Your task to perform on an android device: toggle wifi Image 0: 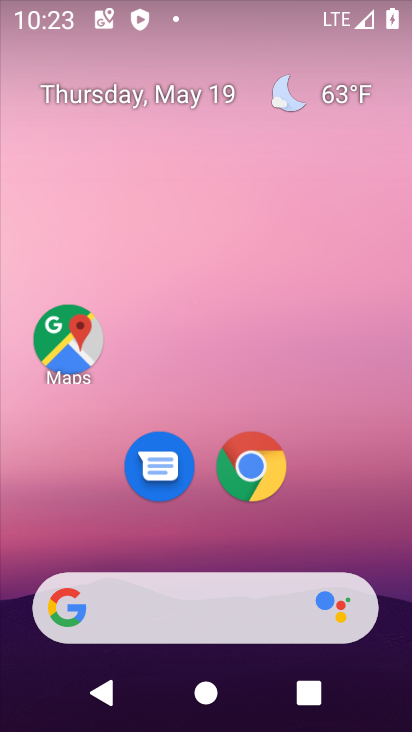
Step 0: drag from (391, 619) to (299, 76)
Your task to perform on an android device: toggle wifi Image 1: 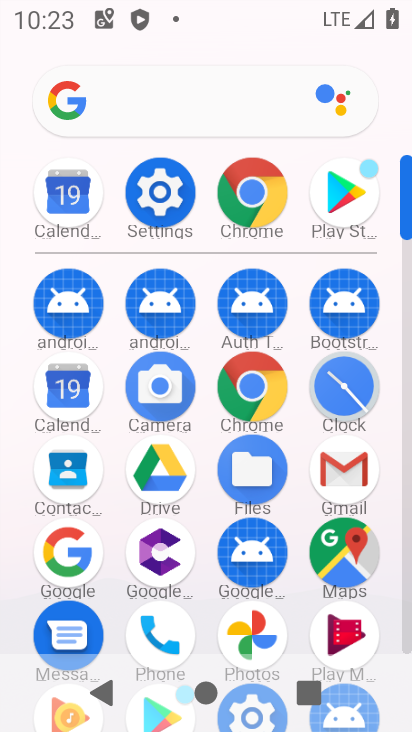
Step 1: drag from (246, 7) to (184, 592)
Your task to perform on an android device: toggle wifi Image 2: 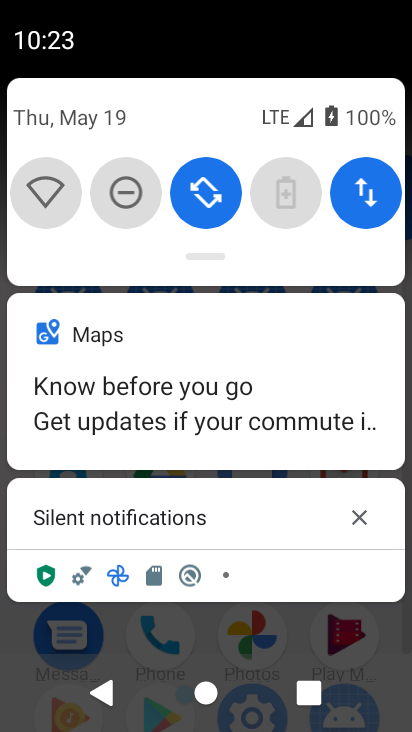
Step 2: click (59, 194)
Your task to perform on an android device: toggle wifi Image 3: 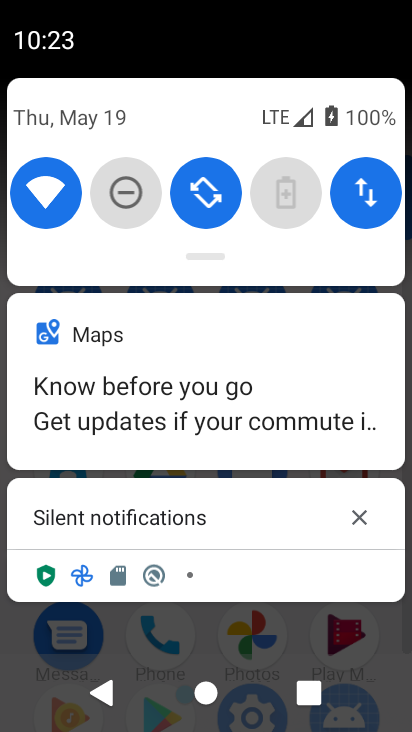
Step 3: task complete